Your task to perform on an android device: uninstall "Google Keep" Image 0: 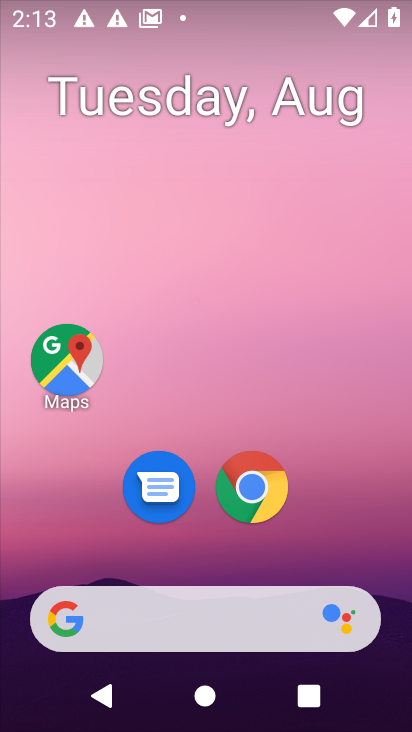
Step 0: drag from (209, 603) to (247, 25)
Your task to perform on an android device: uninstall "Google Keep" Image 1: 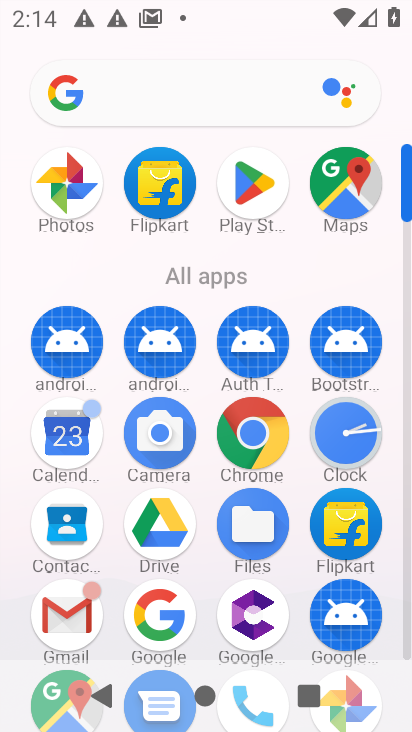
Step 1: click (253, 190)
Your task to perform on an android device: uninstall "Google Keep" Image 2: 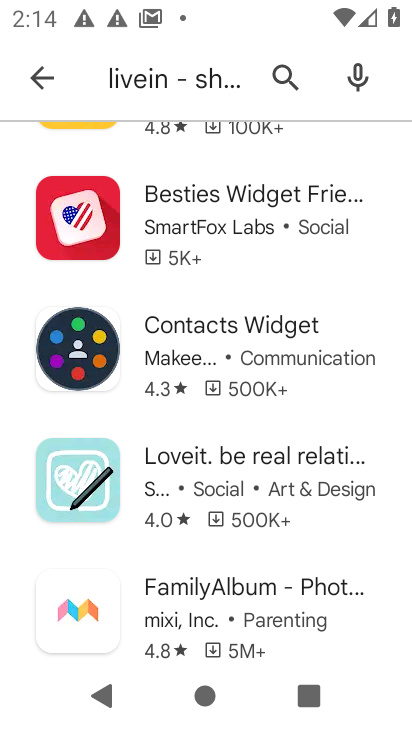
Step 2: press back button
Your task to perform on an android device: uninstall "Google Keep" Image 3: 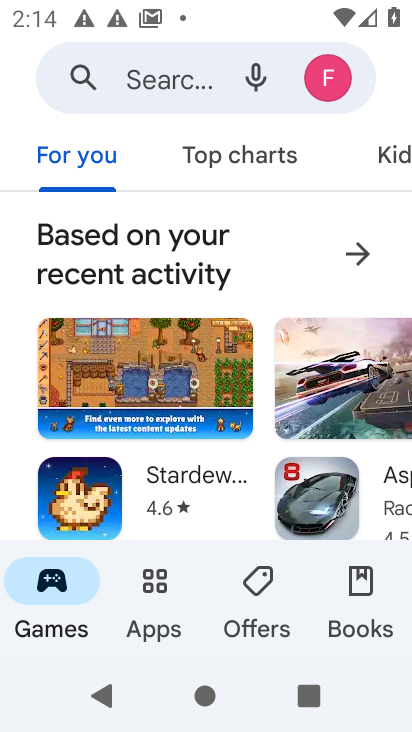
Step 3: click (173, 82)
Your task to perform on an android device: uninstall "Google Keep" Image 4: 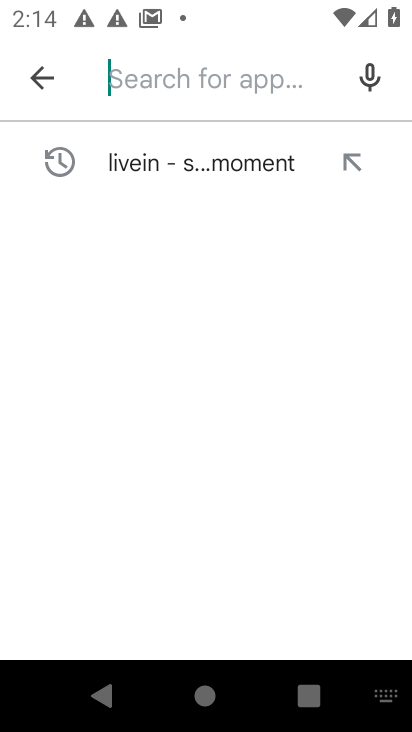
Step 4: type "Google Keep"
Your task to perform on an android device: uninstall "Google Keep" Image 5: 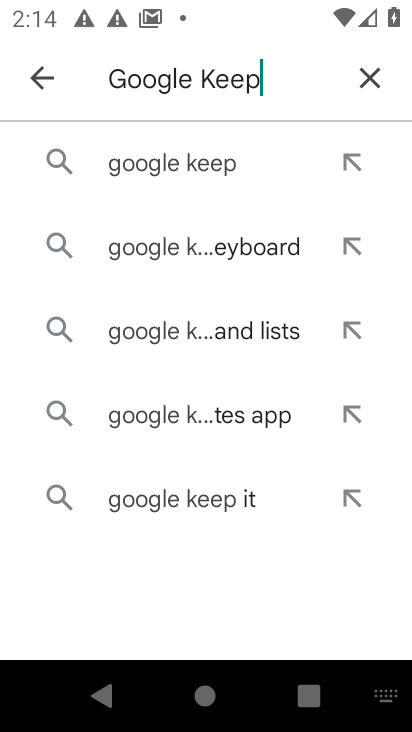
Step 5: click (220, 157)
Your task to perform on an android device: uninstall "Google Keep" Image 6: 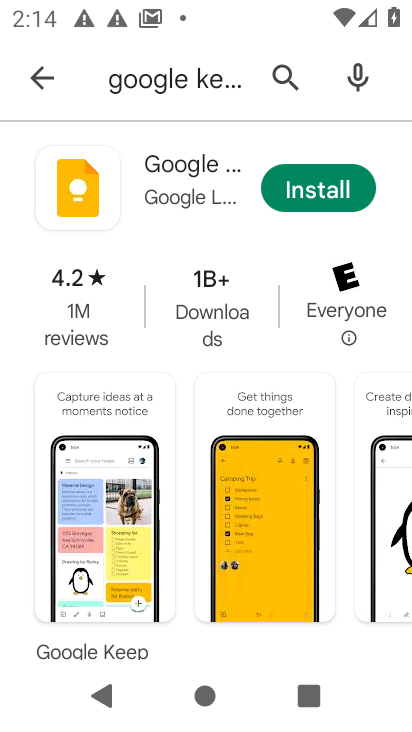
Step 6: task complete